Your task to perform on an android device: turn on location history Image 0: 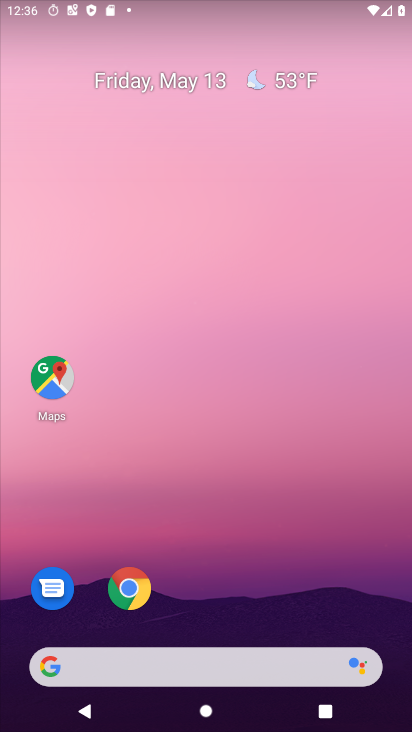
Step 0: drag from (310, 659) to (287, 31)
Your task to perform on an android device: turn on location history Image 1: 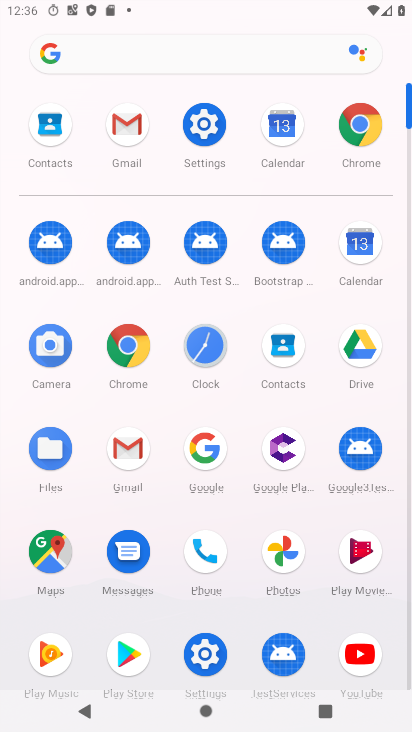
Step 1: click (215, 110)
Your task to perform on an android device: turn on location history Image 2: 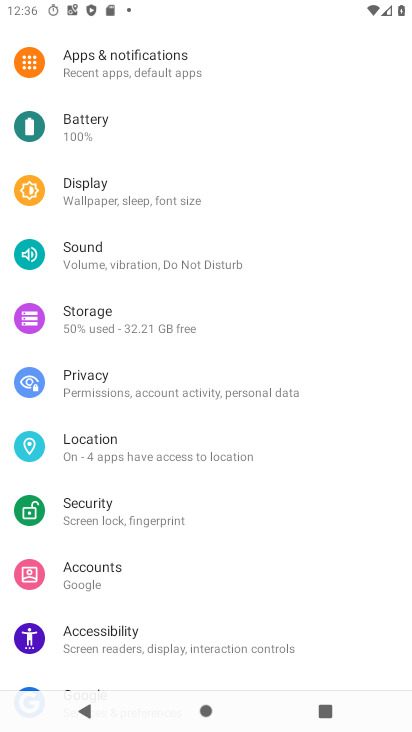
Step 2: click (145, 444)
Your task to perform on an android device: turn on location history Image 3: 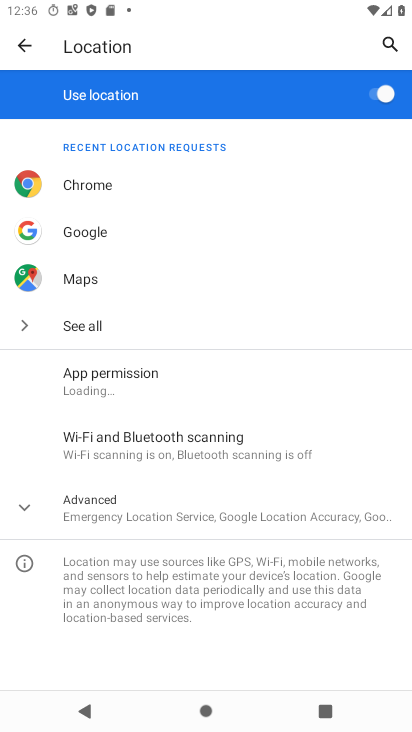
Step 3: click (159, 504)
Your task to perform on an android device: turn on location history Image 4: 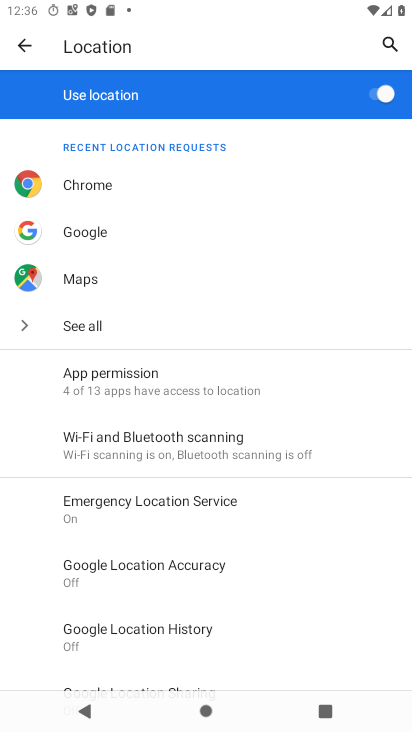
Step 4: click (180, 628)
Your task to perform on an android device: turn on location history Image 5: 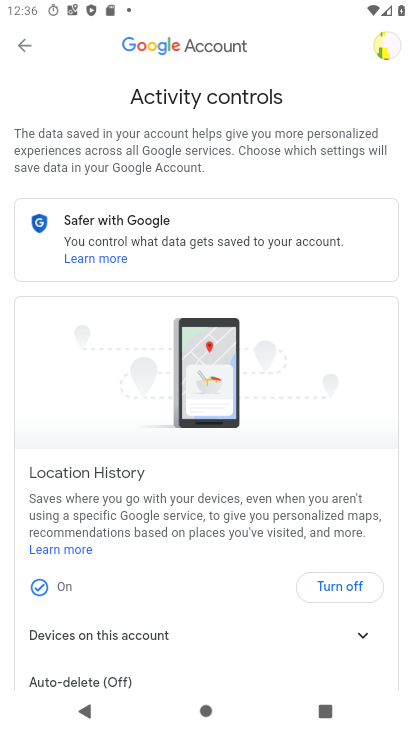
Step 5: task complete